Your task to perform on an android device: Open the Play Movies app and select the watchlist tab. Image 0: 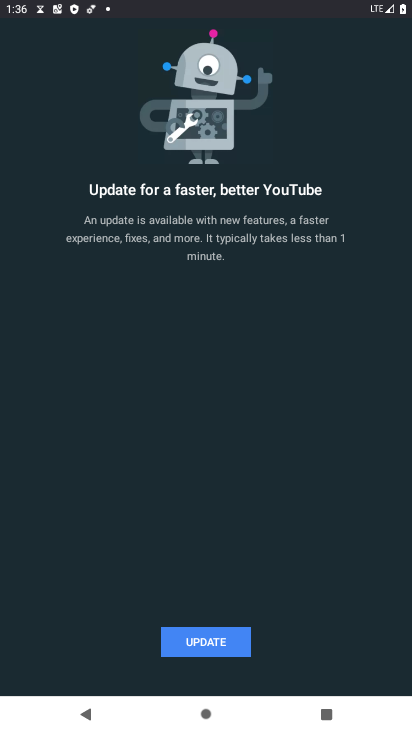
Step 0: press back button
Your task to perform on an android device: Open the Play Movies app and select the watchlist tab. Image 1: 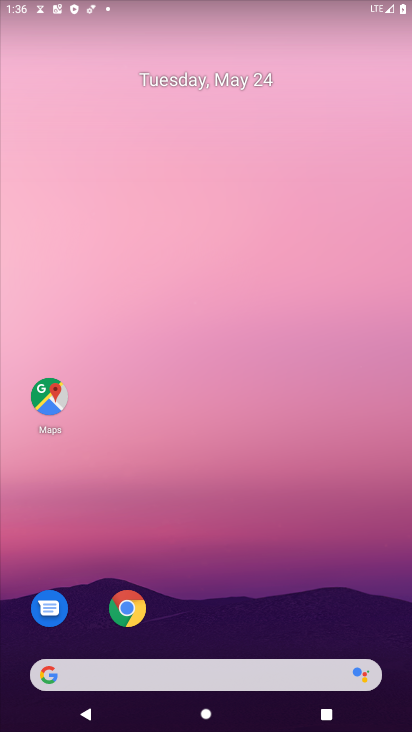
Step 1: drag from (304, 622) to (242, 60)
Your task to perform on an android device: Open the Play Movies app and select the watchlist tab. Image 2: 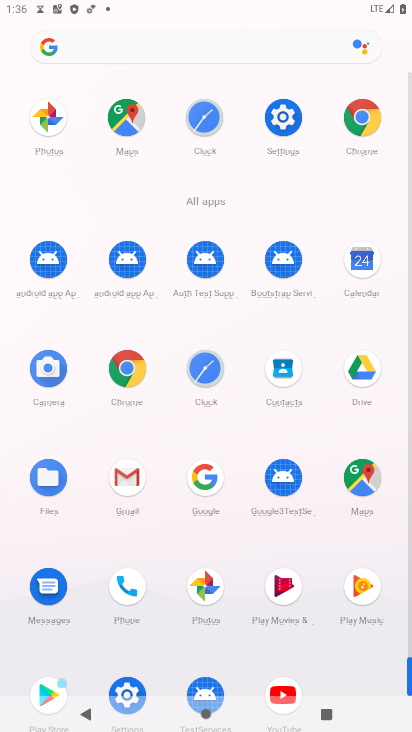
Step 2: click (286, 579)
Your task to perform on an android device: Open the Play Movies app and select the watchlist tab. Image 3: 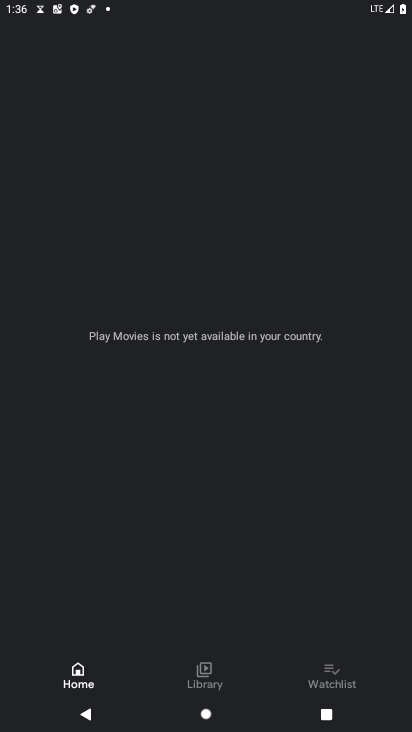
Step 3: click (343, 678)
Your task to perform on an android device: Open the Play Movies app and select the watchlist tab. Image 4: 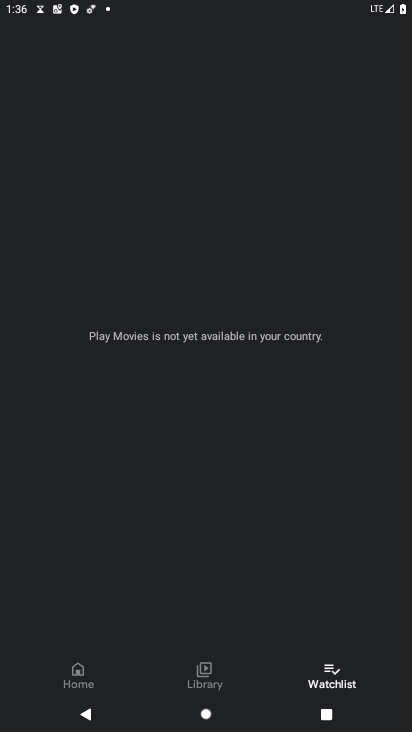
Step 4: task complete